Your task to perform on an android device: Go to notification settings Image 0: 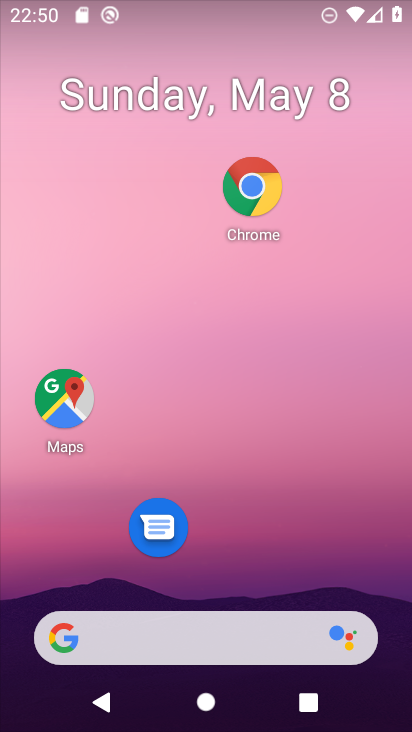
Step 0: drag from (290, 537) to (316, 259)
Your task to perform on an android device: Go to notification settings Image 1: 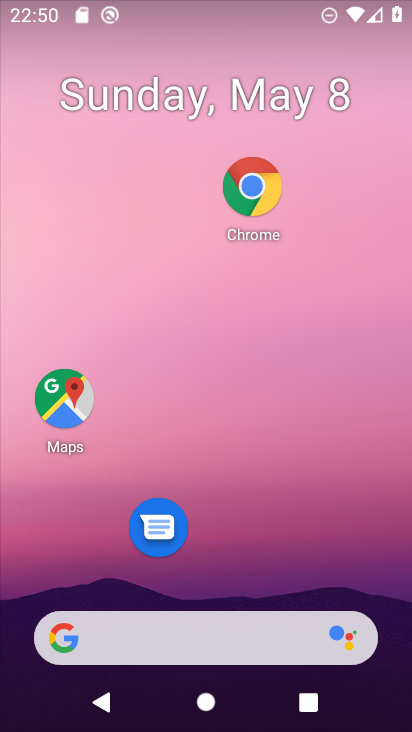
Step 1: drag from (265, 561) to (294, 290)
Your task to perform on an android device: Go to notification settings Image 2: 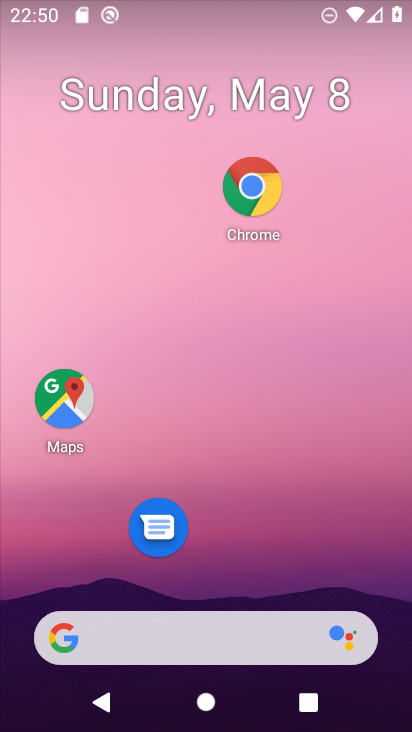
Step 2: drag from (291, 553) to (293, 230)
Your task to perform on an android device: Go to notification settings Image 3: 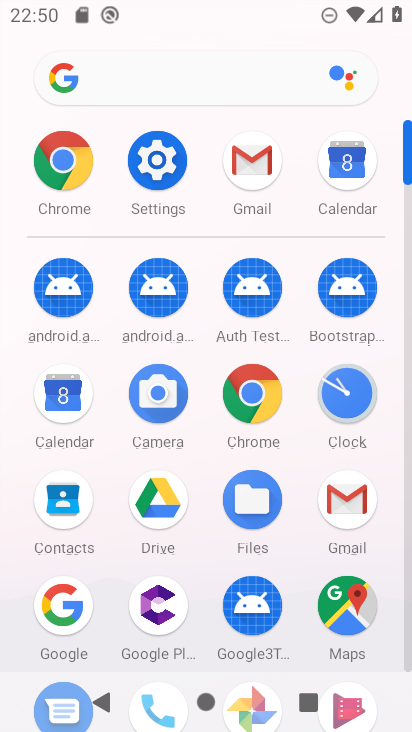
Step 3: click (157, 146)
Your task to perform on an android device: Go to notification settings Image 4: 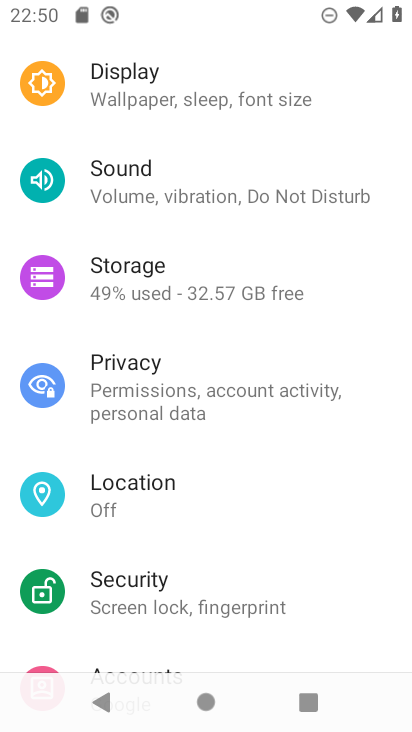
Step 4: drag from (232, 147) to (229, 607)
Your task to perform on an android device: Go to notification settings Image 5: 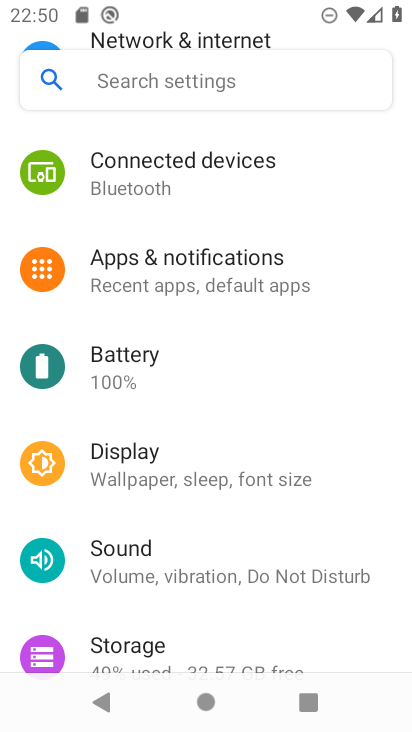
Step 5: drag from (207, 204) to (221, 482)
Your task to perform on an android device: Go to notification settings Image 6: 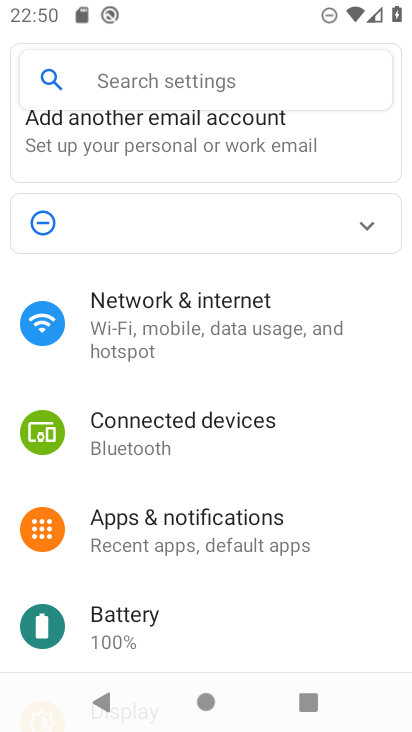
Step 6: click (197, 522)
Your task to perform on an android device: Go to notification settings Image 7: 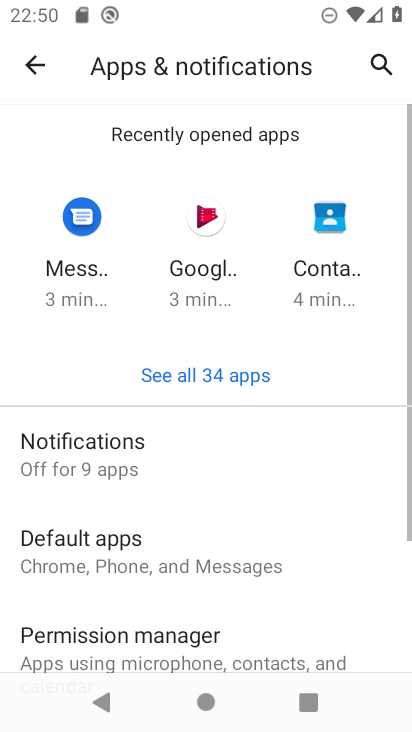
Step 7: click (132, 450)
Your task to perform on an android device: Go to notification settings Image 8: 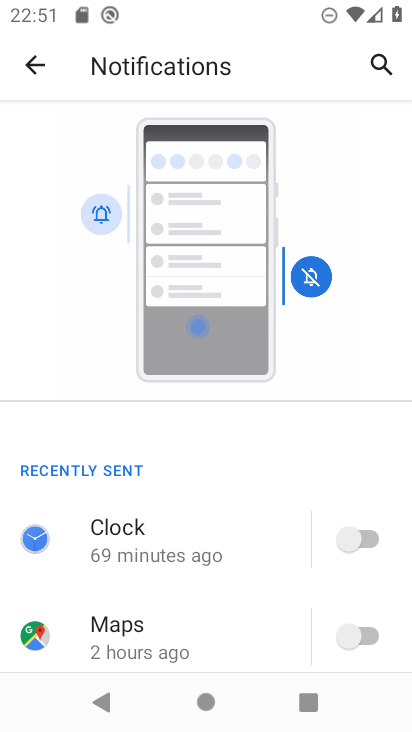
Step 8: task complete